Your task to perform on an android device: turn on the 24-hour format for clock Image 0: 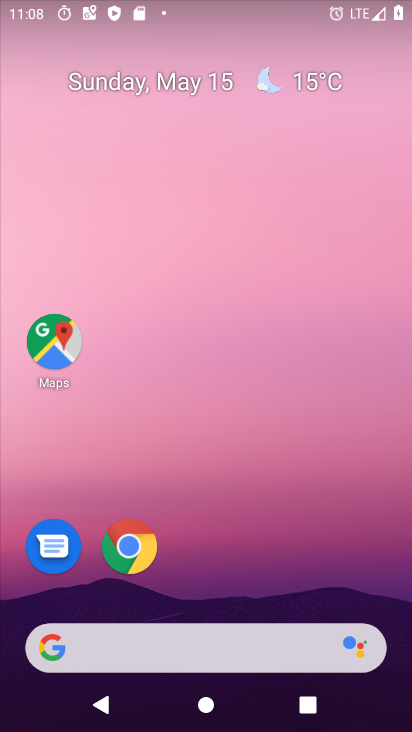
Step 0: drag from (273, 701) to (247, 264)
Your task to perform on an android device: turn on the 24-hour format for clock Image 1: 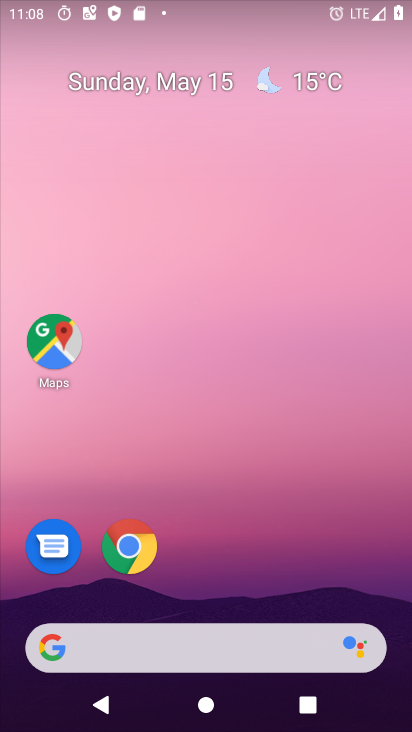
Step 1: drag from (258, 684) to (247, 37)
Your task to perform on an android device: turn on the 24-hour format for clock Image 2: 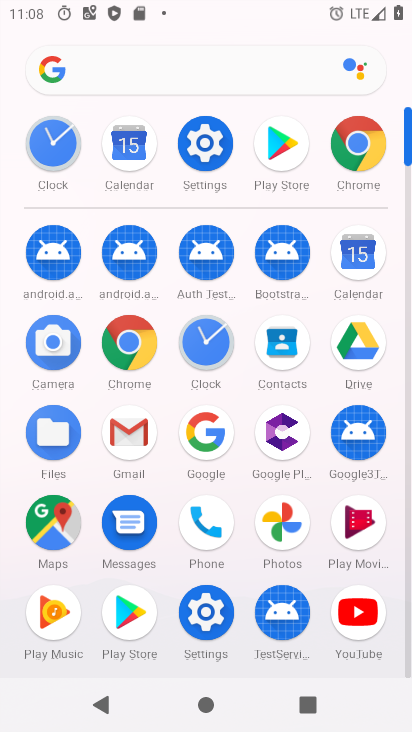
Step 2: click (204, 352)
Your task to perform on an android device: turn on the 24-hour format for clock Image 3: 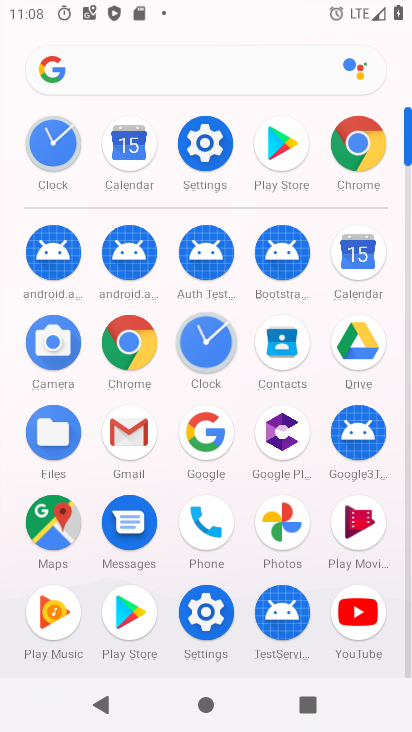
Step 3: click (204, 352)
Your task to perform on an android device: turn on the 24-hour format for clock Image 4: 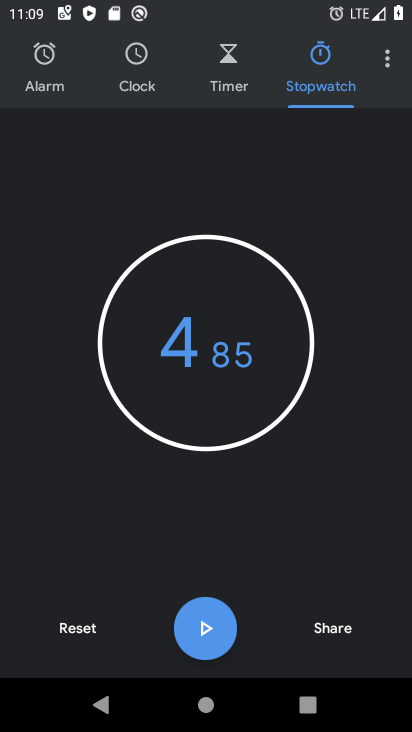
Step 4: click (386, 68)
Your task to perform on an android device: turn on the 24-hour format for clock Image 5: 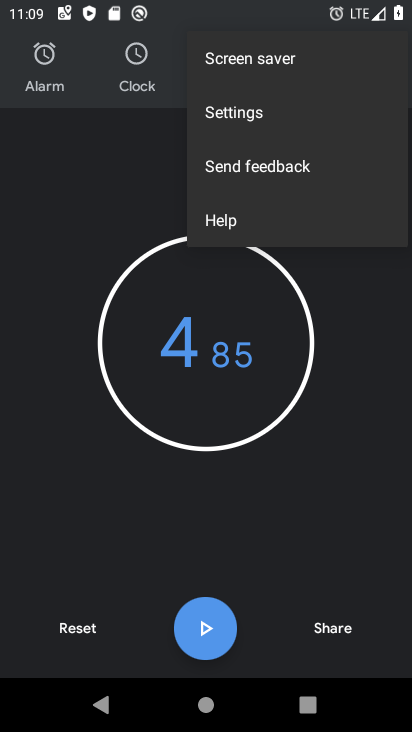
Step 5: click (244, 121)
Your task to perform on an android device: turn on the 24-hour format for clock Image 6: 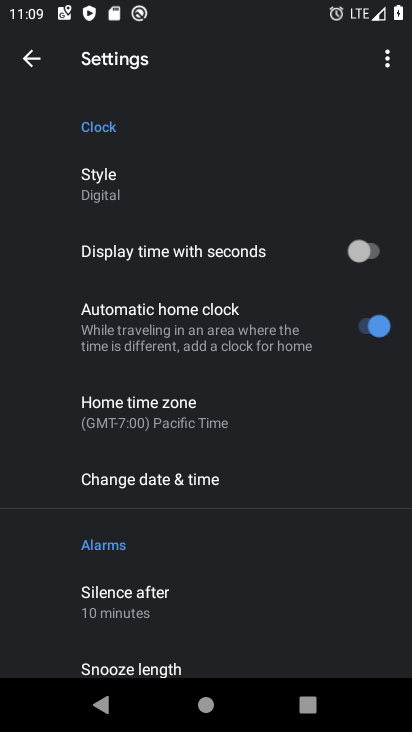
Step 6: drag from (217, 570) to (199, 147)
Your task to perform on an android device: turn on the 24-hour format for clock Image 7: 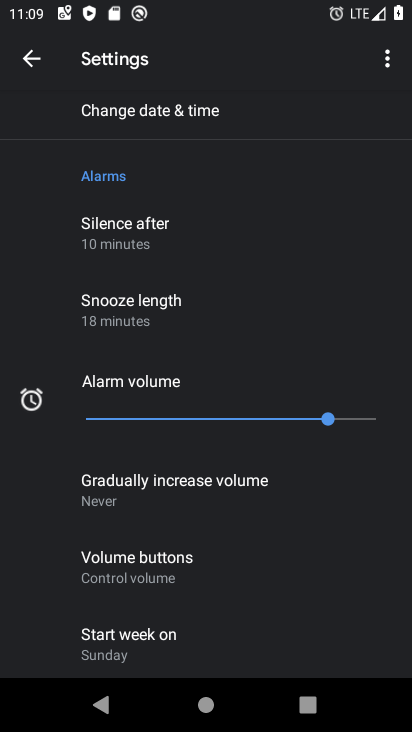
Step 7: drag from (161, 467) to (144, 95)
Your task to perform on an android device: turn on the 24-hour format for clock Image 8: 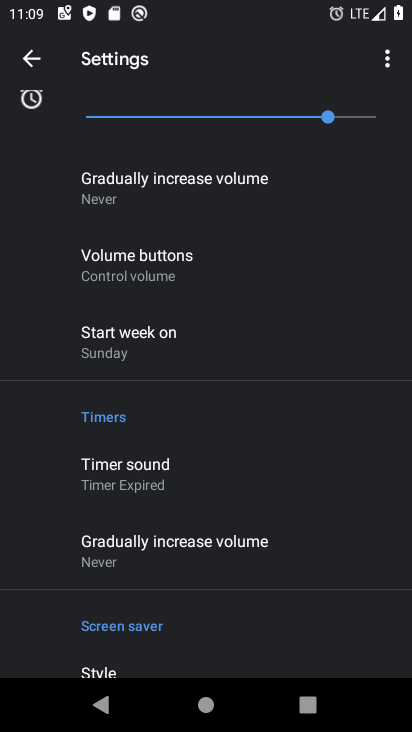
Step 8: drag from (187, 467) to (178, 114)
Your task to perform on an android device: turn on the 24-hour format for clock Image 9: 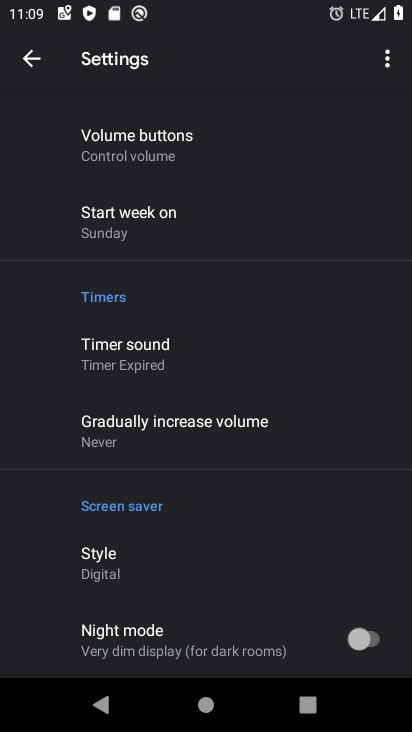
Step 9: drag from (214, 508) to (271, 41)
Your task to perform on an android device: turn on the 24-hour format for clock Image 10: 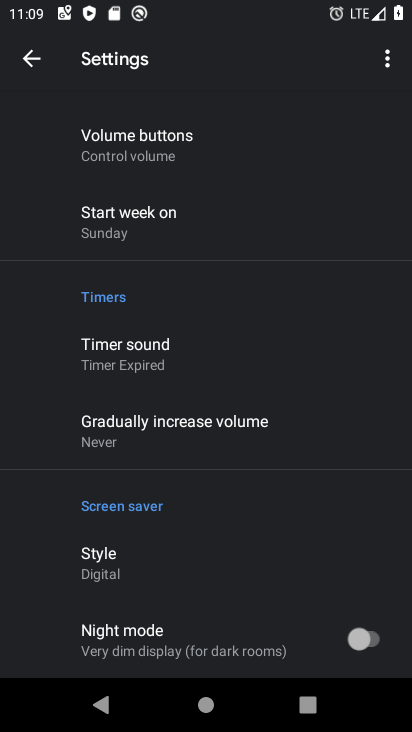
Step 10: drag from (180, 216) to (180, 561)
Your task to perform on an android device: turn on the 24-hour format for clock Image 11: 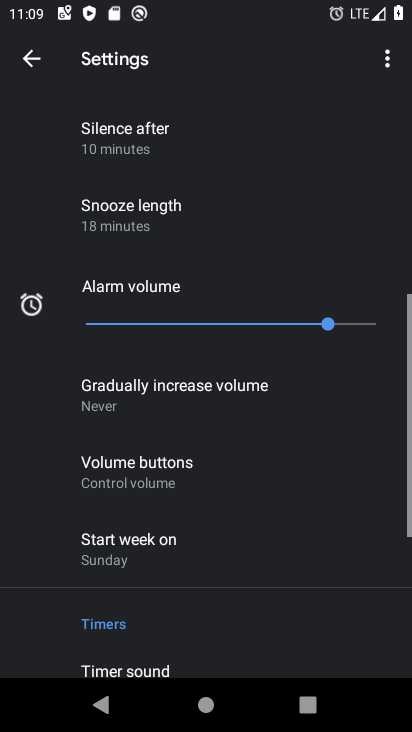
Step 11: drag from (205, 277) to (251, 570)
Your task to perform on an android device: turn on the 24-hour format for clock Image 12: 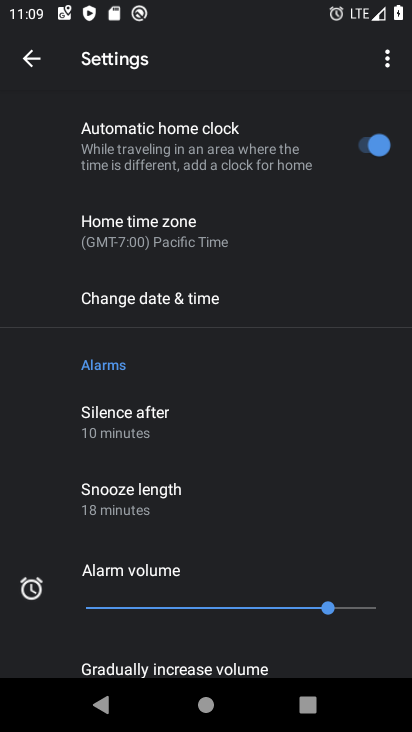
Step 12: click (166, 301)
Your task to perform on an android device: turn on the 24-hour format for clock Image 13: 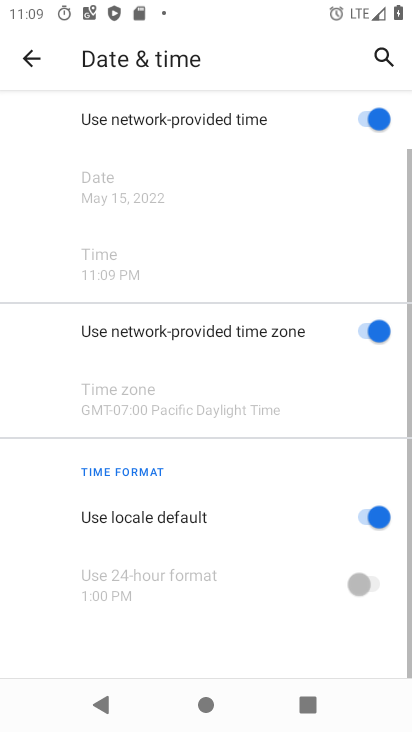
Step 13: click (320, 31)
Your task to perform on an android device: turn on the 24-hour format for clock Image 14: 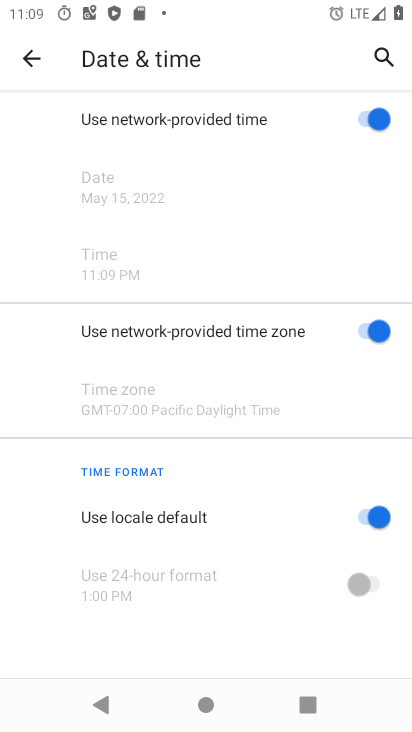
Step 14: click (369, 514)
Your task to perform on an android device: turn on the 24-hour format for clock Image 15: 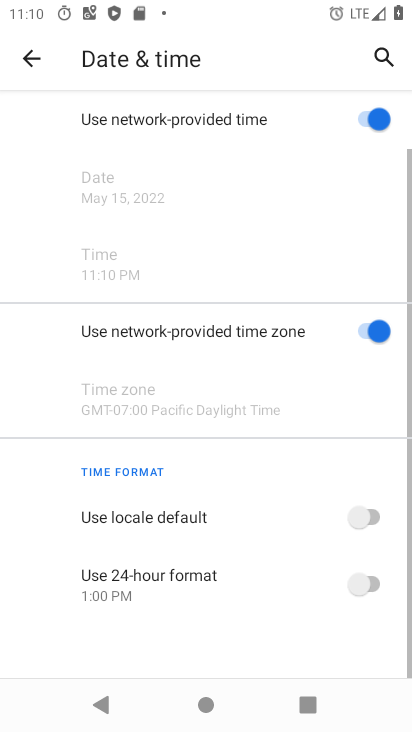
Step 15: click (361, 584)
Your task to perform on an android device: turn on the 24-hour format for clock Image 16: 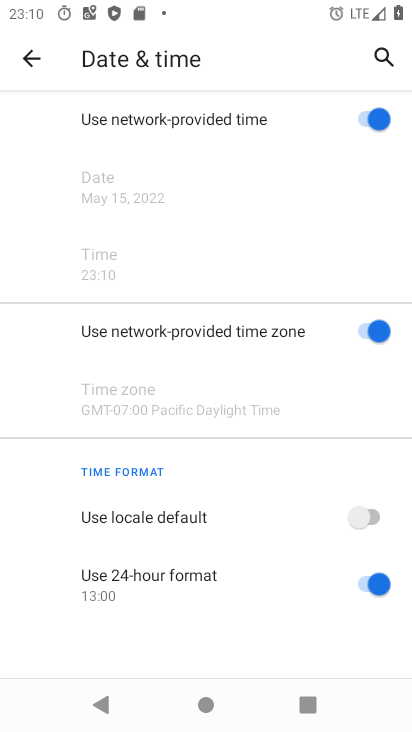
Step 16: task complete